Your task to perform on an android device: Open Chrome and go to settings Image 0: 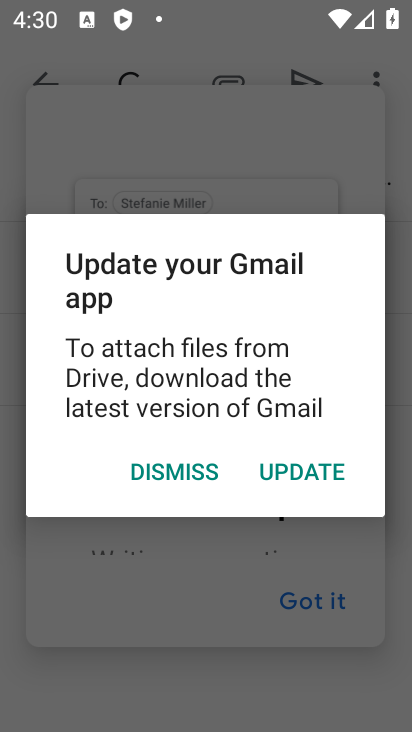
Step 0: press home button
Your task to perform on an android device: Open Chrome and go to settings Image 1: 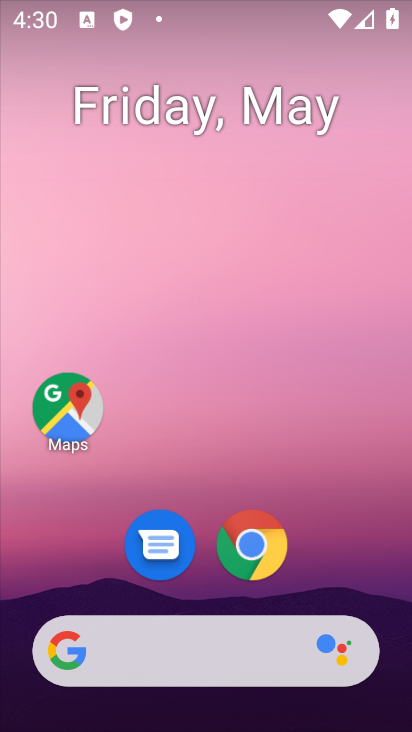
Step 1: click (243, 561)
Your task to perform on an android device: Open Chrome and go to settings Image 2: 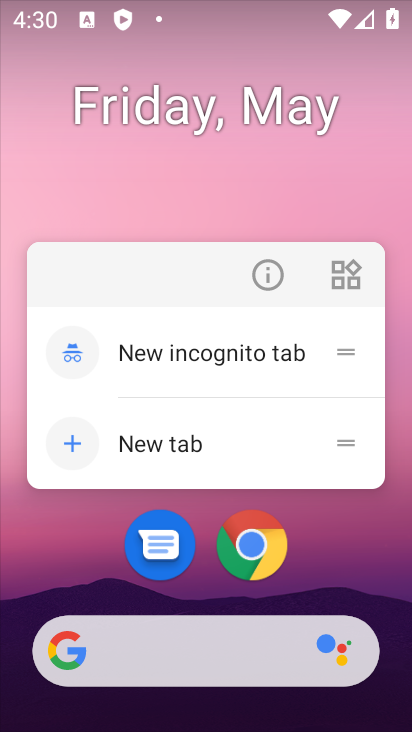
Step 2: click (249, 560)
Your task to perform on an android device: Open Chrome and go to settings Image 3: 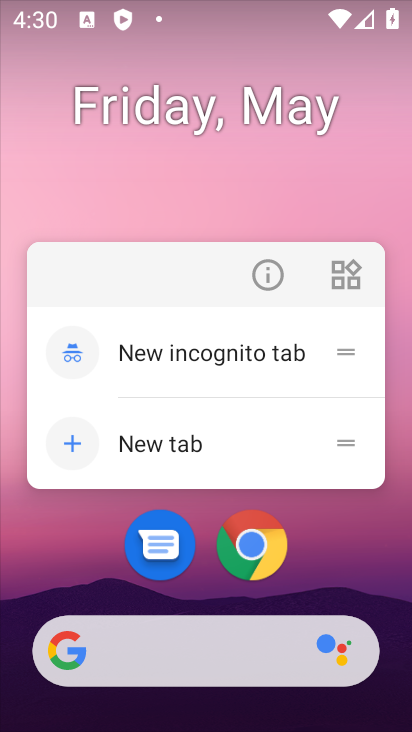
Step 3: click (231, 548)
Your task to perform on an android device: Open Chrome and go to settings Image 4: 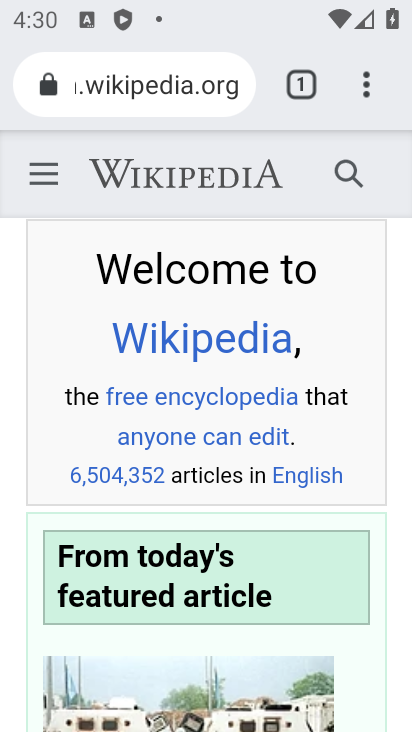
Step 4: click (357, 85)
Your task to perform on an android device: Open Chrome and go to settings Image 5: 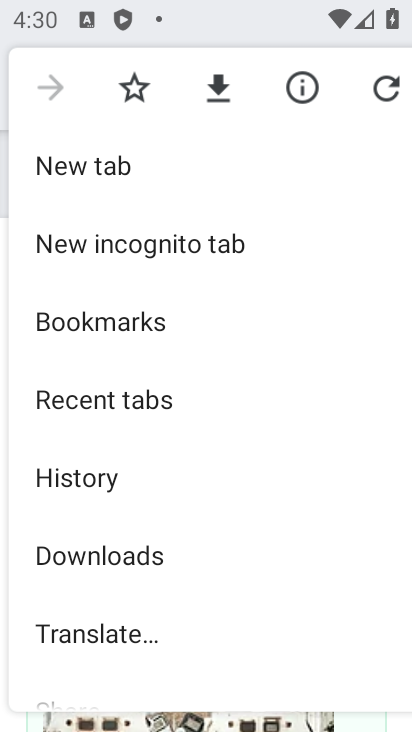
Step 5: drag from (133, 590) to (140, 195)
Your task to perform on an android device: Open Chrome and go to settings Image 6: 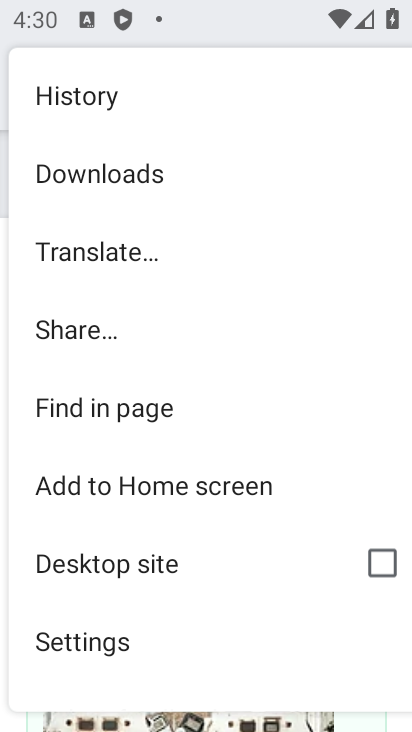
Step 6: click (133, 637)
Your task to perform on an android device: Open Chrome and go to settings Image 7: 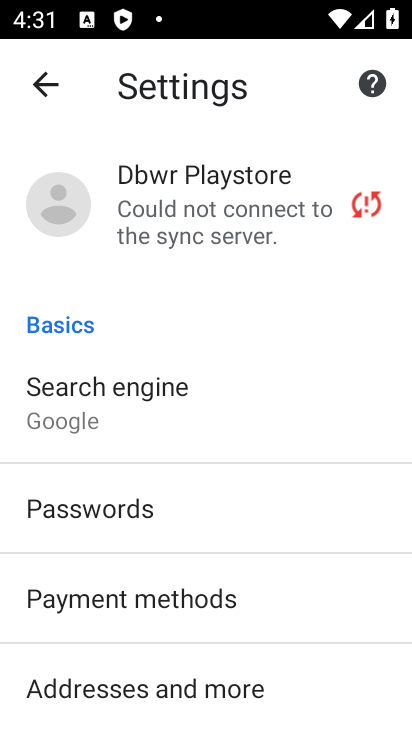
Step 7: press home button
Your task to perform on an android device: Open Chrome and go to settings Image 8: 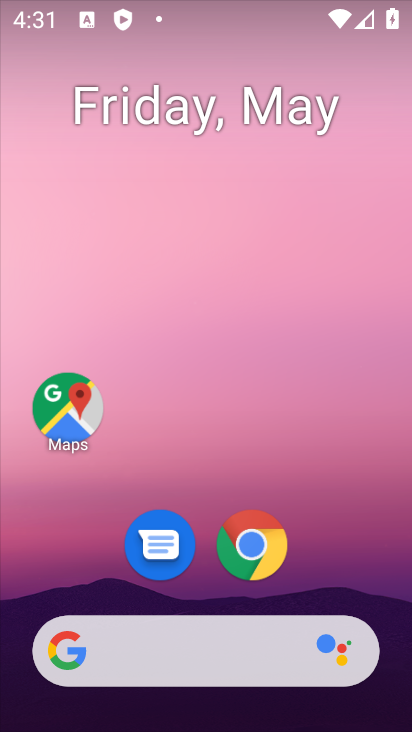
Step 8: click (209, 542)
Your task to perform on an android device: Open Chrome and go to settings Image 9: 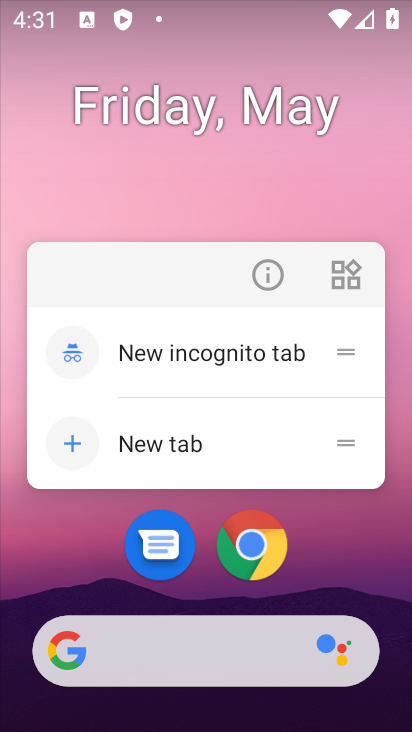
Step 9: click (222, 545)
Your task to perform on an android device: Open Chrome and go to settings Image 10: 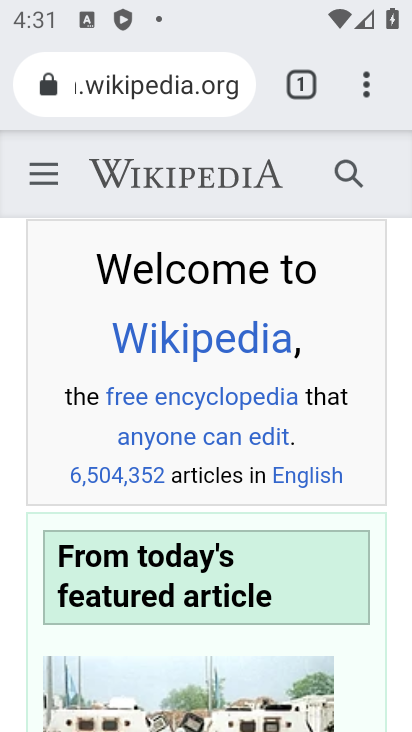
Step 10: click (363, 96)
Your task to perform on an android device: Open Chrome and go to settings Image 11: 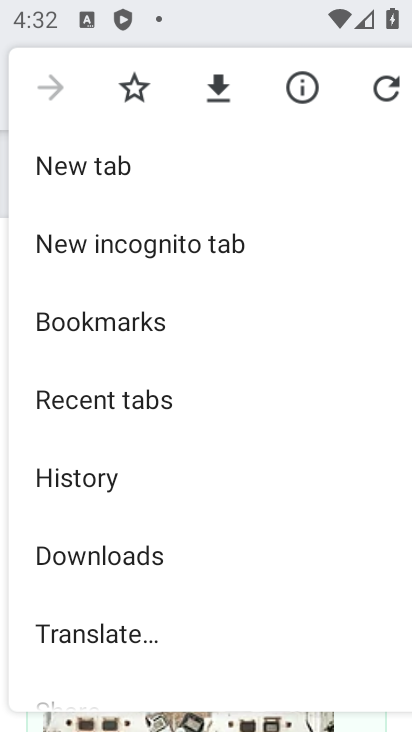
Step 11: click (174, 198)
Your task to perform on an android device: Open Chrome and go to settings Image 12: 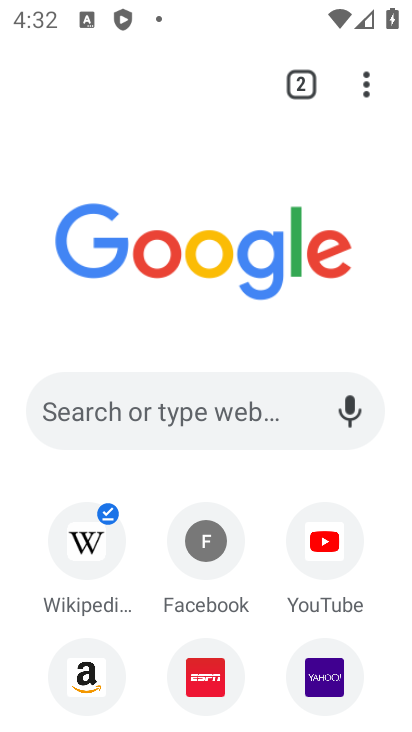
Step 12: click (371, 85)
Your task to perform on an android device: Open Chrome and go to settings Image 13: 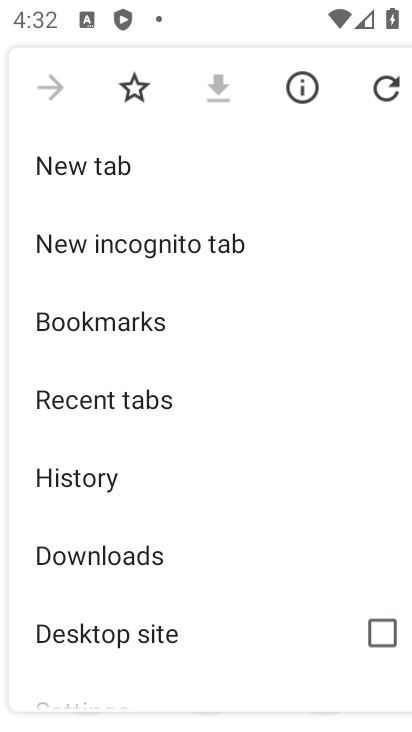
Step 13: drag from (280, 512) to (273, 137)
Your task to perform on an android device: Open Chrome and go to settings Image 14: 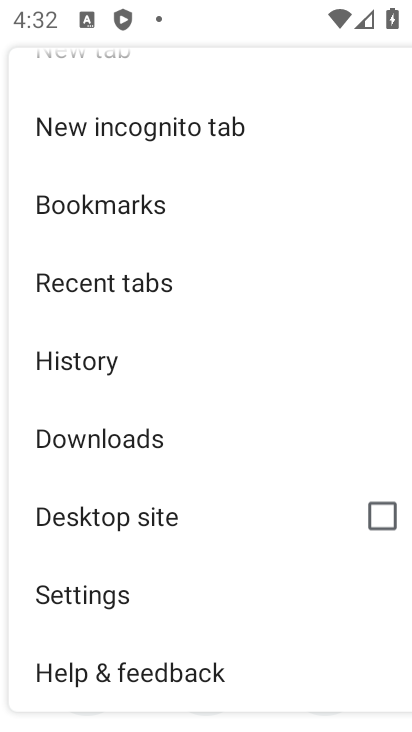
Step 14: click (146, 566)
Your task to perform on an android device: Open Chrome and go to settings Image 15: 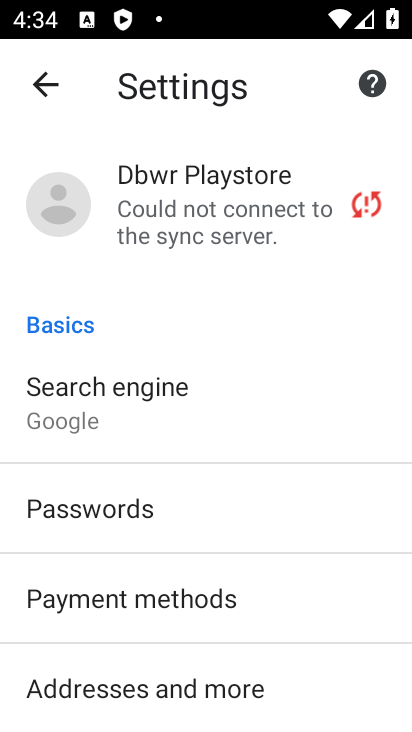
Step 15: task complete